Your task to perform on an android device: make emails show in primary in the gmail app Image 0: 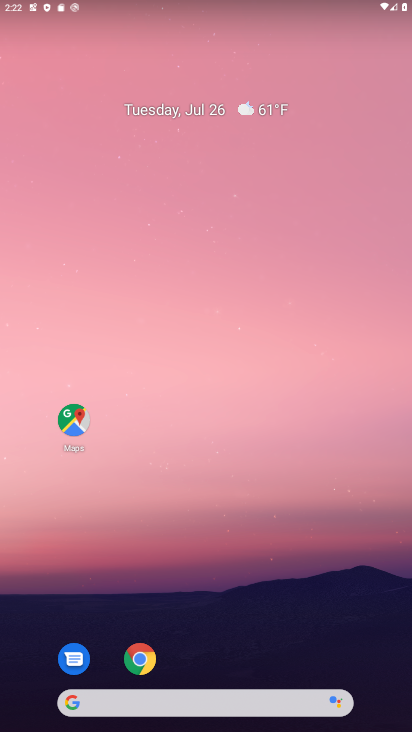
Step 0: click (180, 667)
Your task to perform on an android device: make emails show in primary in the gmail app Image 1: 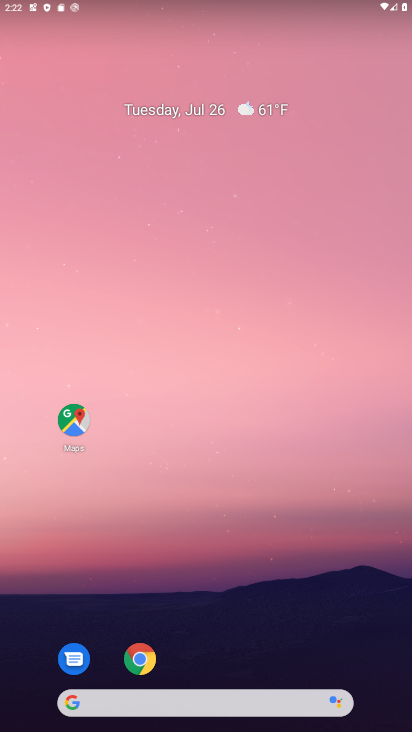
Step 1: drag from (180, 583) to (219, 84)
Your task to perform on an android device: make emails show in primary in the gmail app Image 2: 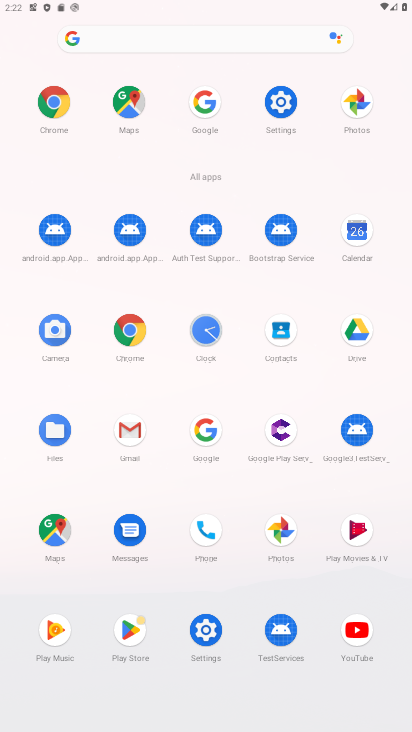
Step 2: click (280, 100)
Your task to perform on an android device: make emails show in primary in the gmail app Image 3: 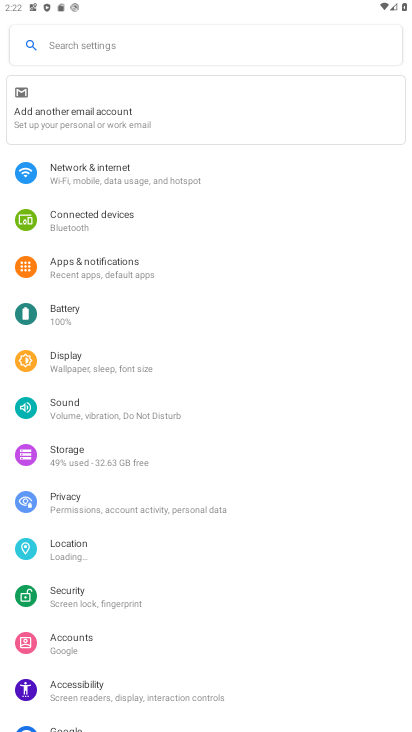
Step 3: press back button
Your task to perform on an android device: make emails show in primary in the gmail app Image 4: 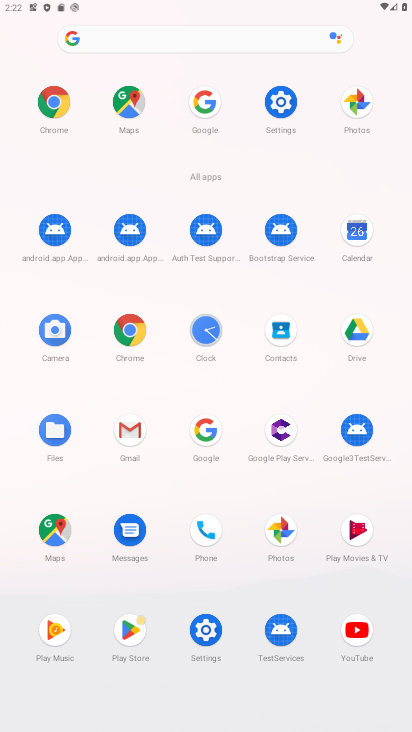
Step 4: click (123, 442)
Your task to perform on an android device: make emails show in primary in the gmail app Image 5: 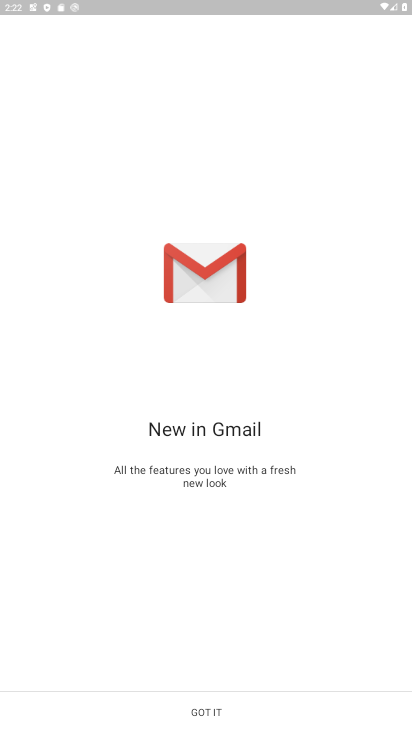
Step 5: click (192, 709)
Your task to perform on an android device: make emails show in primary in the gmail app Image 6: 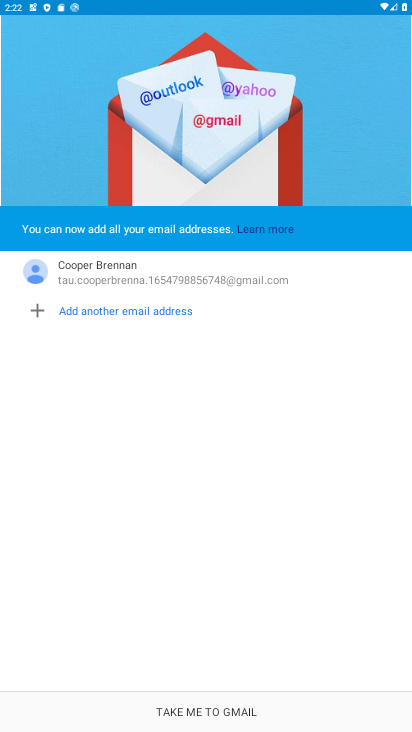
Step 6: click (192, 709)
Your task to perform on an android device: make emails show in primary in the gmail app Image 7: 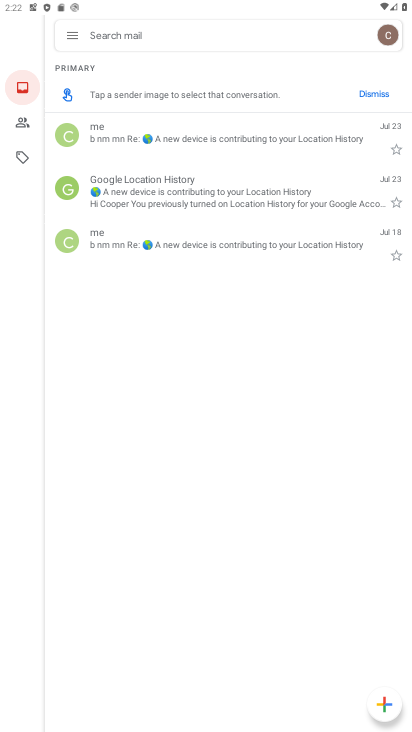
Step 7: click (70, 33)
Your task to perform on an android device: make emails show in primary in the gmail app Image 8: 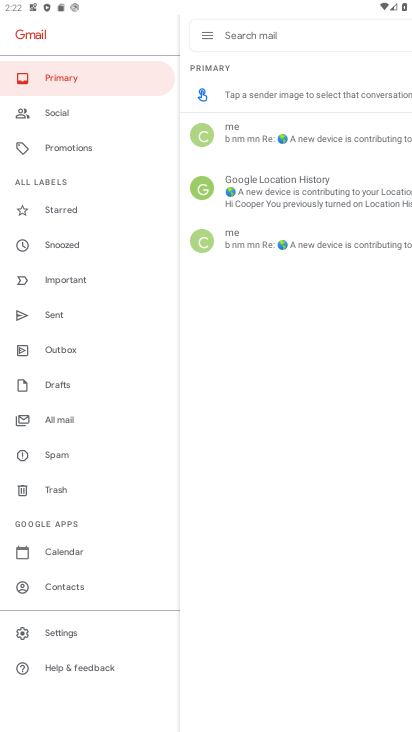
Step 8: click (56, 630)
Your task to perform on an android device: make emails show in primary in the gmail app Image 9: 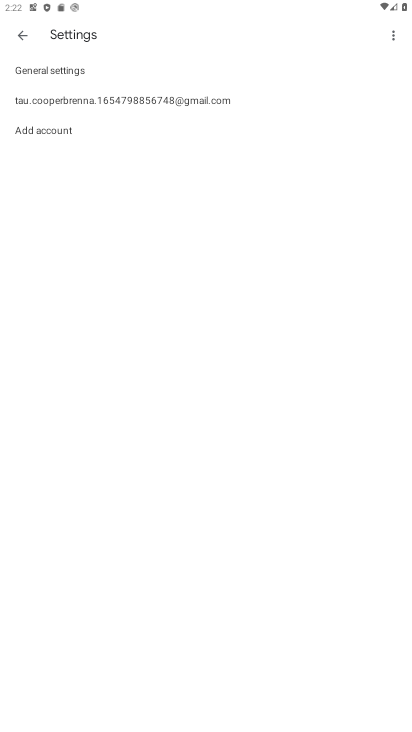
Step 9: click (158, 96)
Your task to perform on an android device: make emails show in primary in the gmail app Image 10: 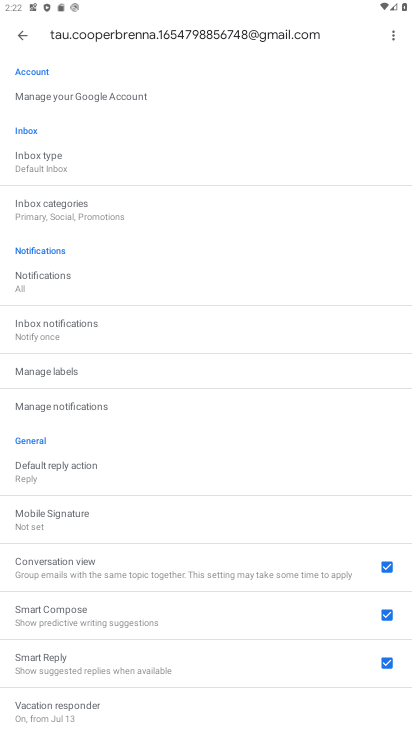
Step 10: click (79, 206)
Your task to perform on an android device: make emails show in primary in the gmail app Image 11: 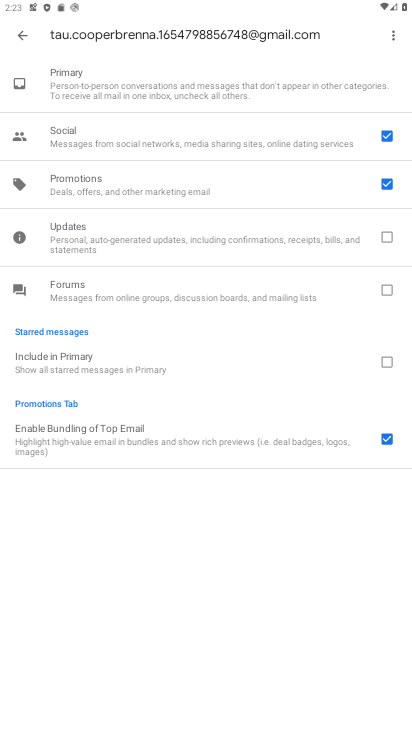
Step 11: click (391, 184)
Your task to perform on an android device: make emails show in primary in the gmail app Image 12: 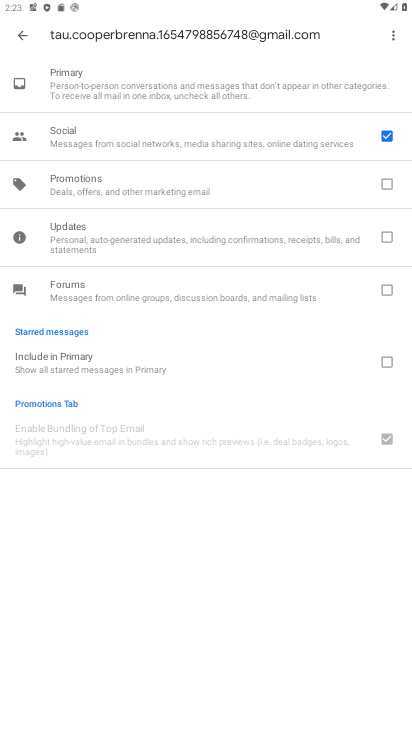
Step 12: task complete